Your task to perform on an android device: open sync settings in chrome Image 0: 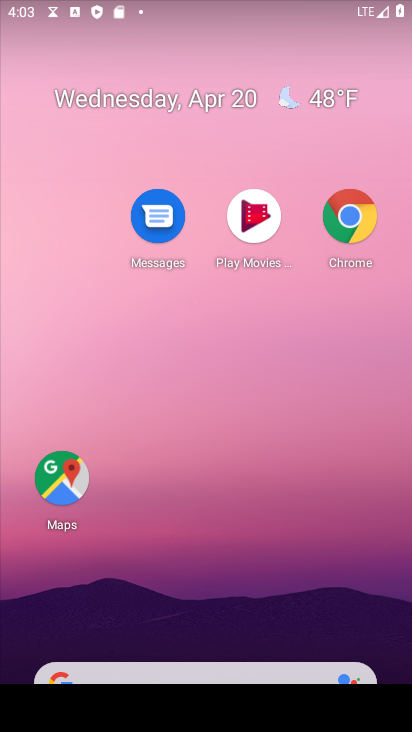
Step 0: click (360, 220)
Your task to perform on an android device: open sync settings in chrome Image 1: 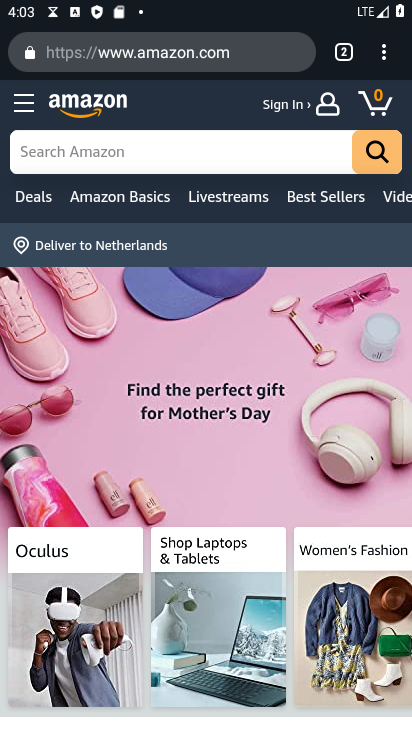
Step 1: click (386, 58)
Your task to perform on an android device: open sync settings in chrome Image 2: 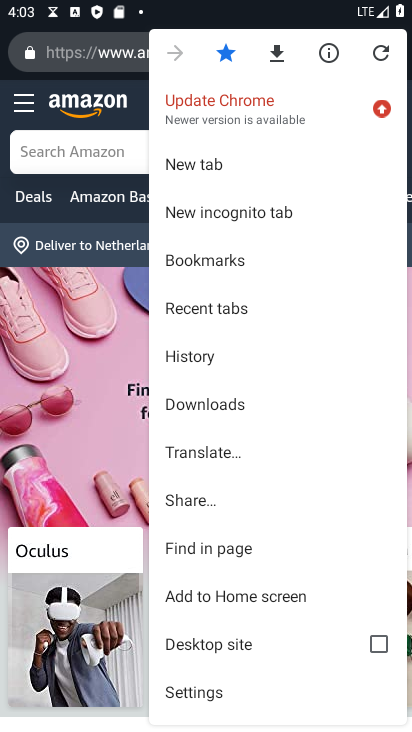
Step 2: click (197, 693)
Your task to perform on an android device: open sync settings in chrome Image 3: 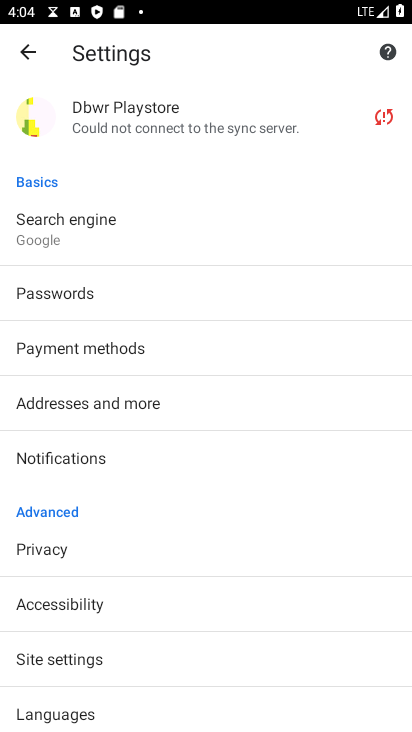
Step 3: drag from (342, 127) to (397, 219)
Your task to perform on an android device: open sync settings in chrome Image 4: 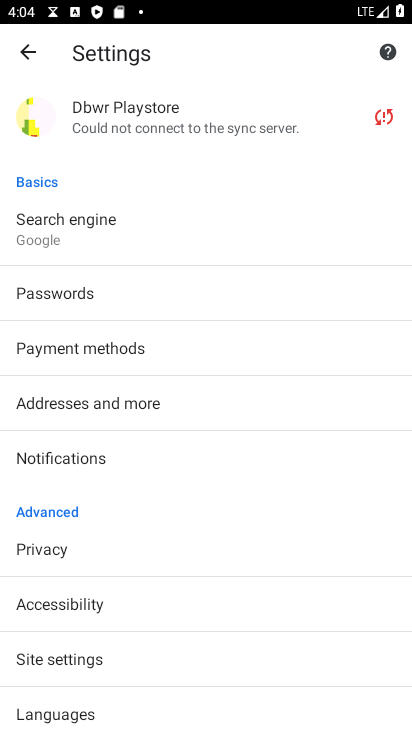
Step 4: click (203, 131)
Your task to perform on an android device: open sync settings in chrome Image 5: 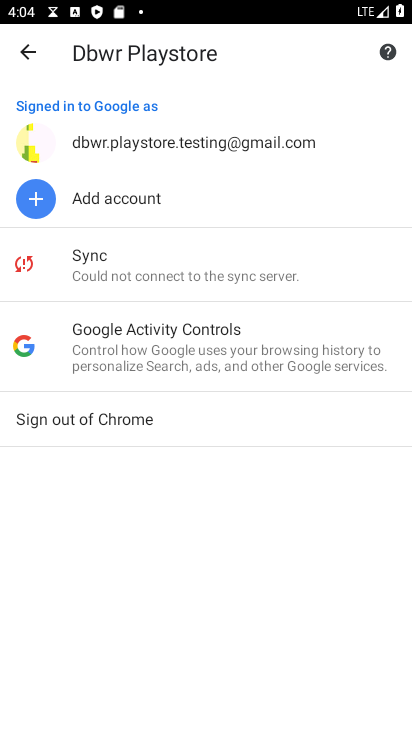
Step 5: click (173, 269)
Your task to perform on an android device: open sync settings in chrome Image 6: 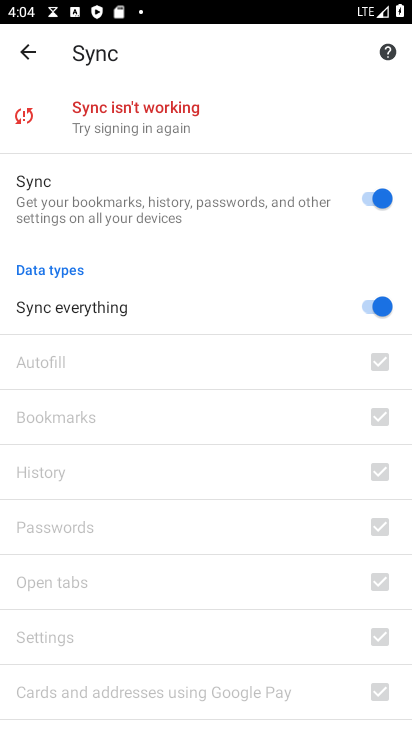
Step 6: task complete